Your task to perform on an android device: Go to Yahoo.com Image 0: 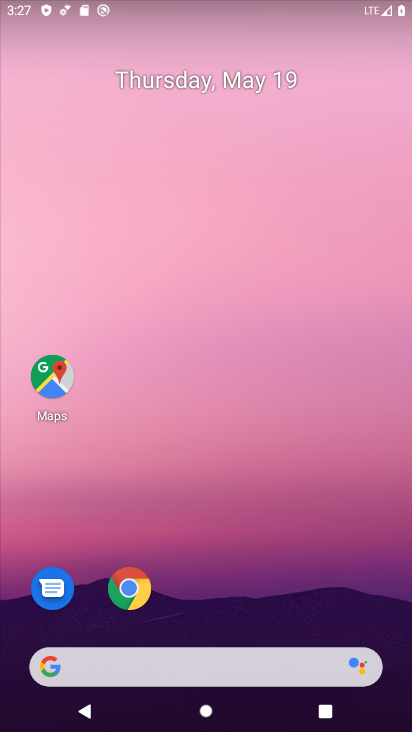
Step 0: drag from (270, 691) to (285, 57)
Your task to perform on an android device: Go to Yahoo.com Image 1: 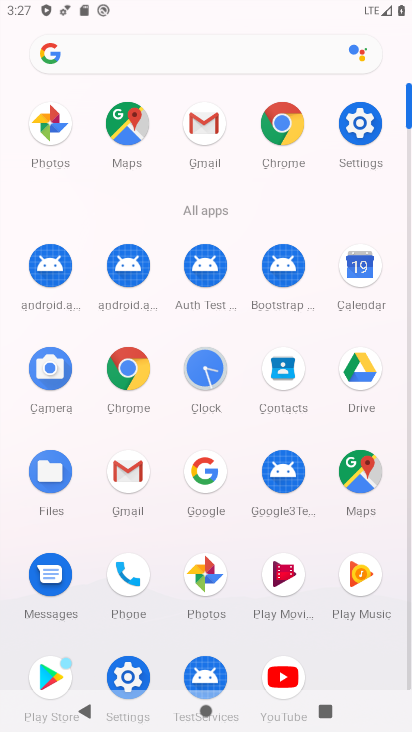
Step 1: click (287, 130)
Your task to perform on an android device: Go to Yahoo.com Image 2: 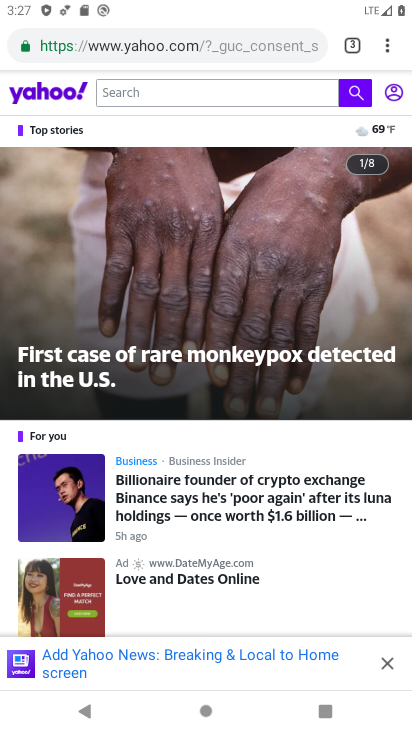
Step 2: click (351, 57)
Your task to perform on an android device: Go to Yahoo.com Image 3: 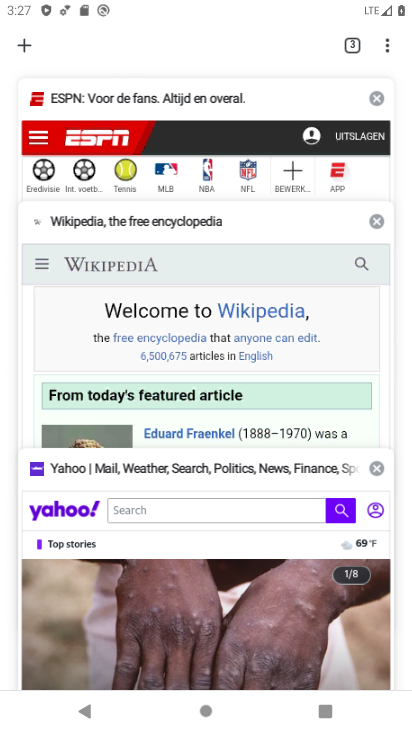
Step 3: click (40, 49)
Your task to perform on an android device: Go to Yahoo.com Image 4: 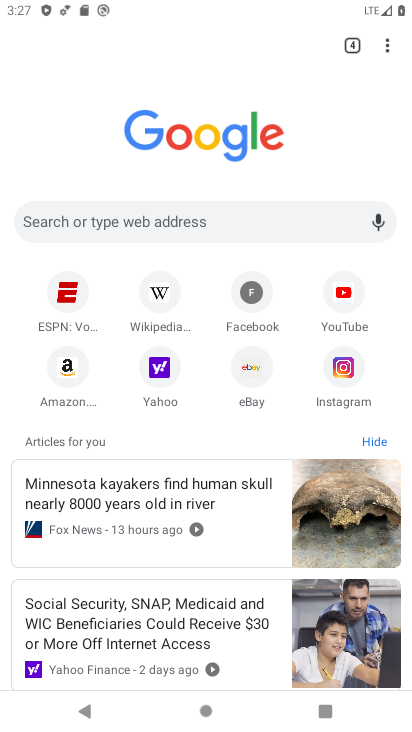
Step 4: click (165, 396)
Your task to perform on an android device: Go to Yahoo.com Image 5: 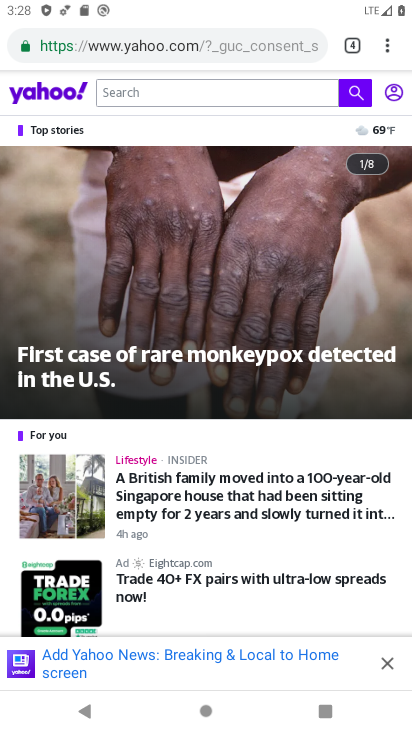
Step 5: task complete